Your task to perform on an android device: Go to Google Image 0: 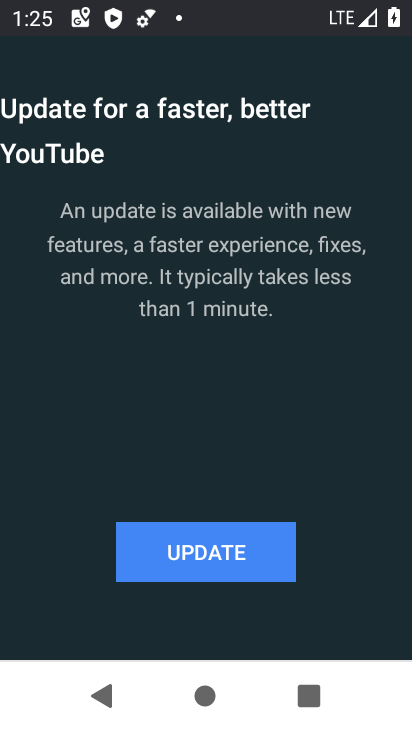
Step 0: press home button
Your task to perform on an android device: Go to Google Image 1: 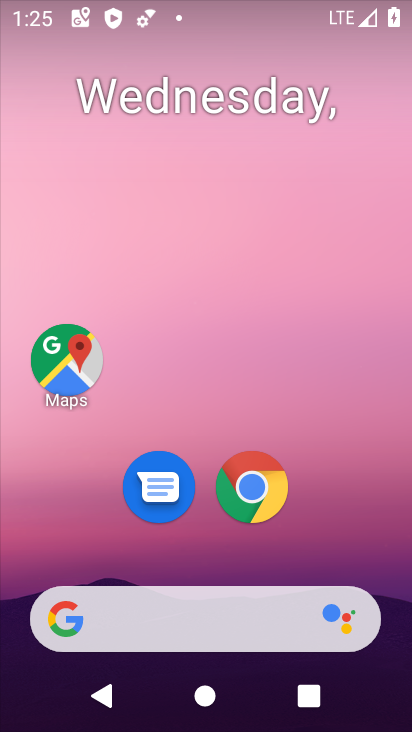
Step 1: drag from (359, 526) to (299, 105)
Your task to perform on an android device: Go to Google Image 2: 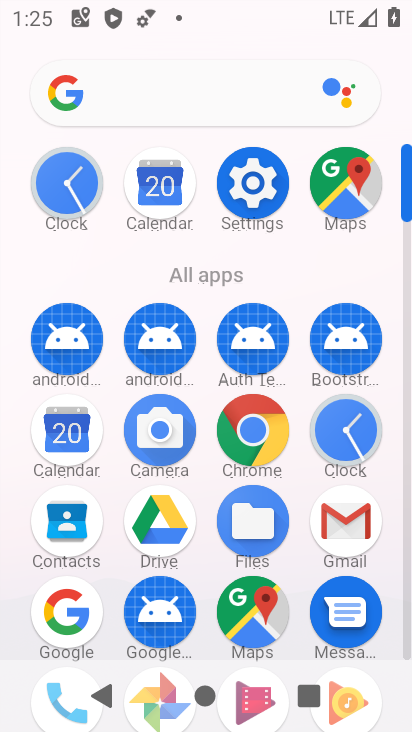
Step 2: click (411, 638)
Your task to perform on an android device: Go to Google Image 3: 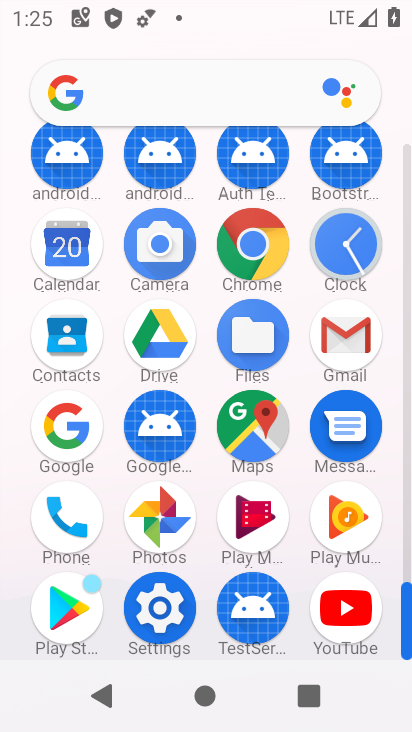
Step 3: click (55, 429)
Your task to perform on an android device: Go to Google Image 4: 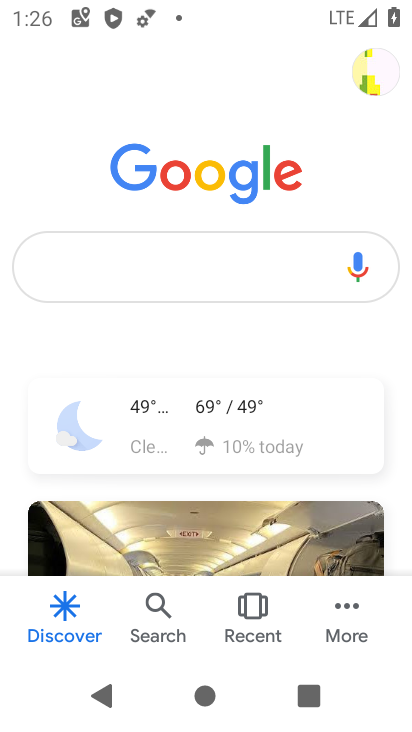
Step 4: task complete